Your task to perform on an android device: Go to Google maps Image 0: 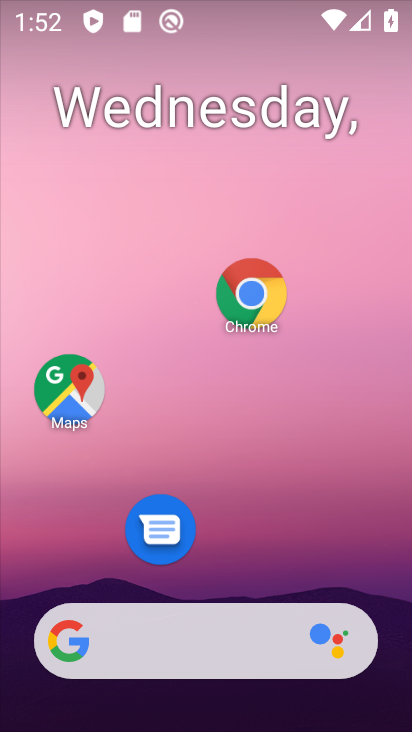
Step 0: drag from (270, 532) to (340, 267)
Your task to perform on an android device: Go to Google maps Image 1: 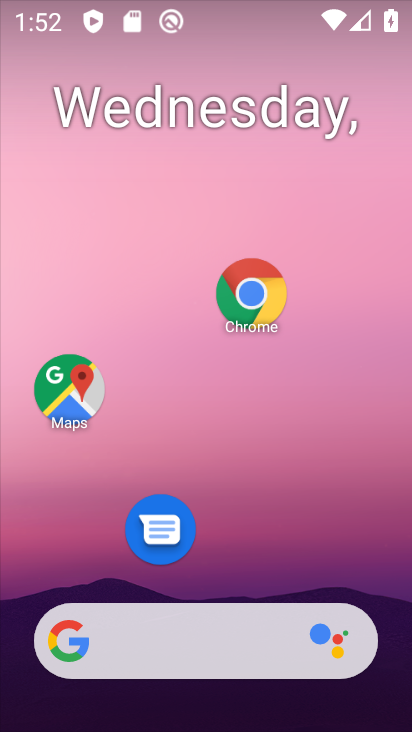
Step 1: drag from (303, 588) to (299, 363)
Your task to perform on an android device: Go to Google maps Image 2: 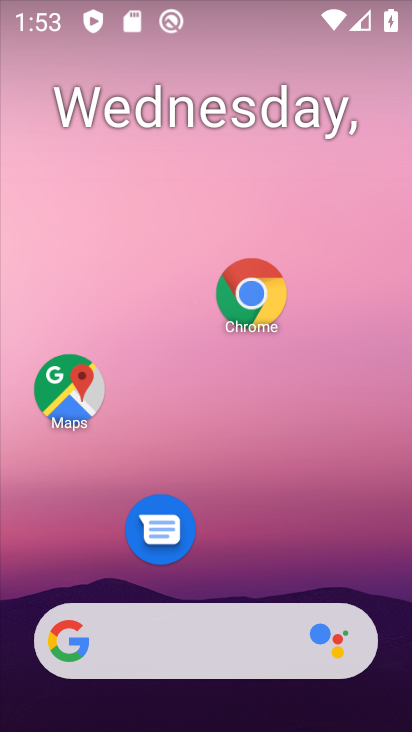
Step 2: click (79, 379)
Your task to perform on an android device: Go to Google maps Image 3: 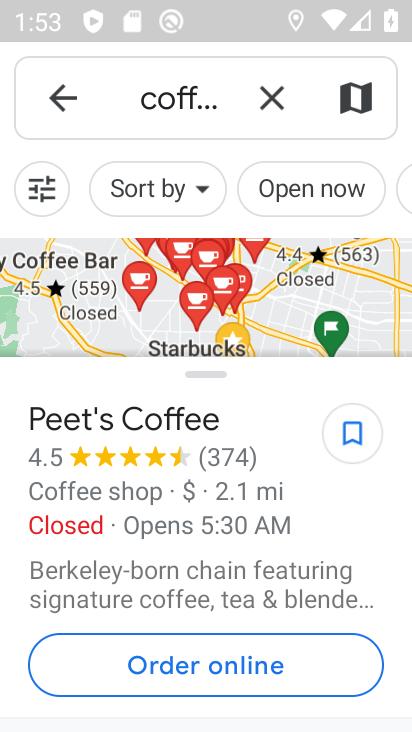
Step 3: task complete